Your task to perform on an android device: see sites visited before in the chrome app Image 0: 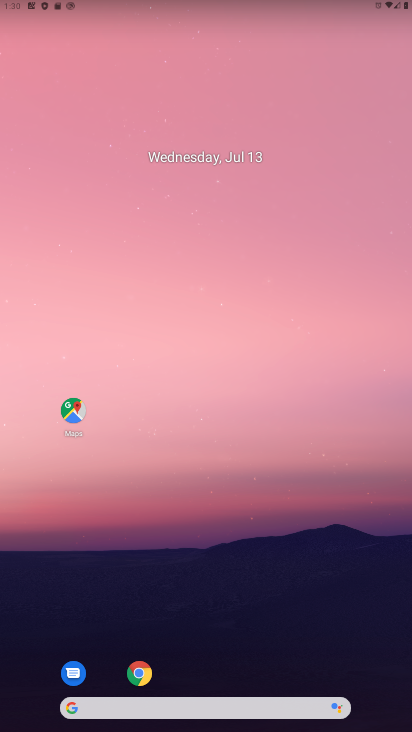
Step 0: drag from (234, 678) to (225, 158)
Your task to perform on an android device: see sites visited before in the chrome app Image 1: 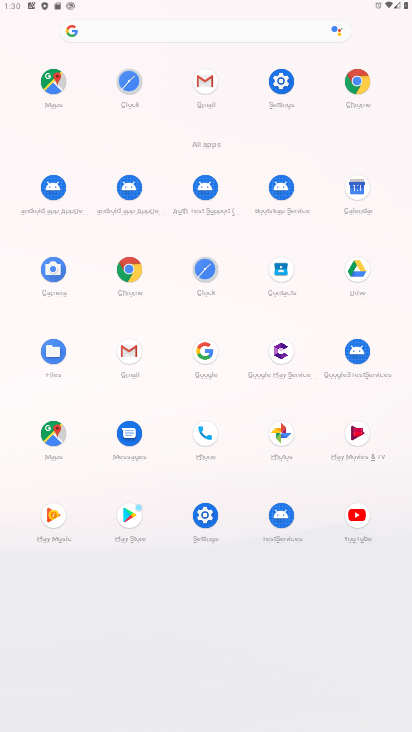
Step 1: click (129, 271)
Your task to perform on an android device: see sites visited before in the chrome app Image 2: 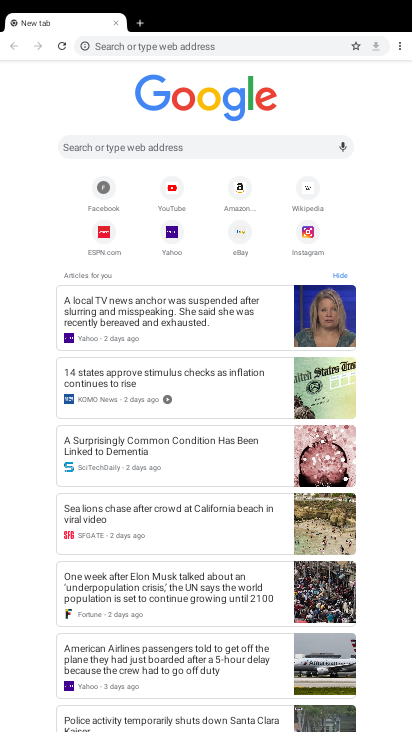
Step 2: click (399, 50)
Your task to perform on an android device: see sites visited before in the chrome app Image 3: 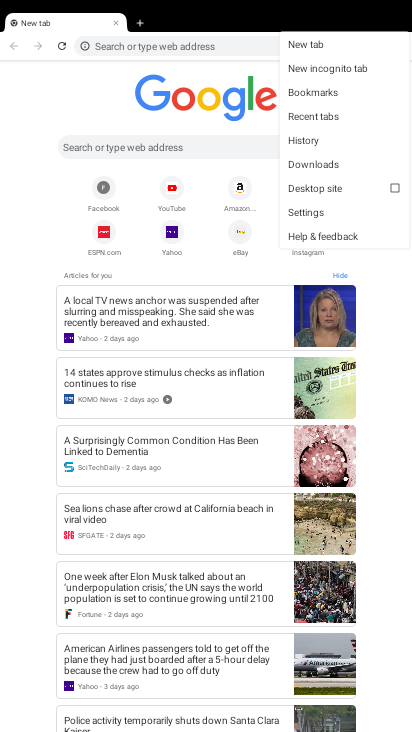
Step 3: click (314, 132)
Your task to perform on an android device: see sites visited before in the chrome app Image 4: 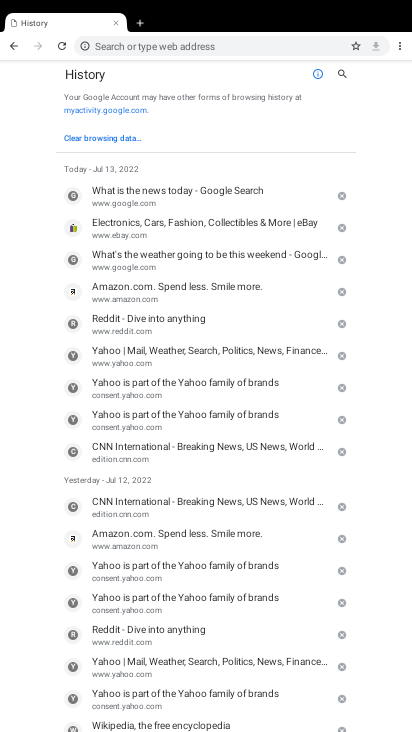
Step 4: task complete